Your task to perform on an android device: clear all cookies in the chrome app Image 0: 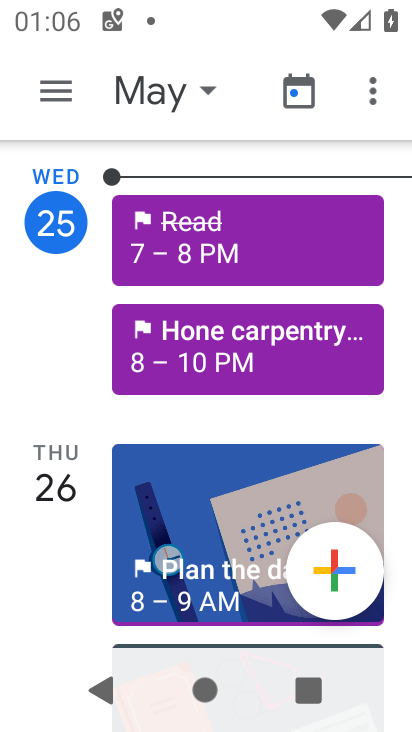
Step 0: press home button
Your task to perform on an android device: clear all cookies in the chrome app Image 1: 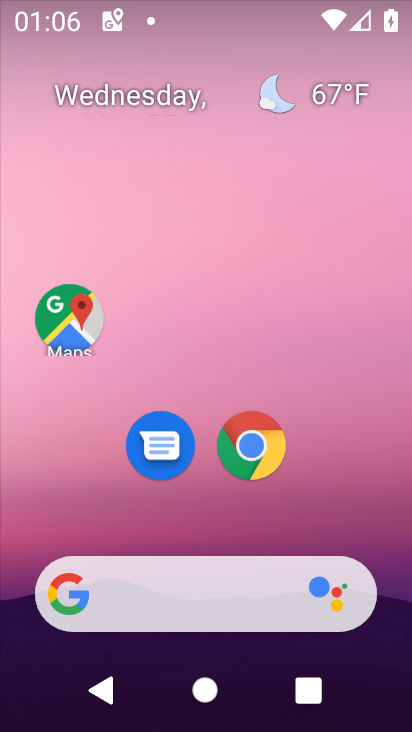
Step 1: click (271, 447)
Your task to perform on an android device: clear all cookies in the chrome app Image 2: 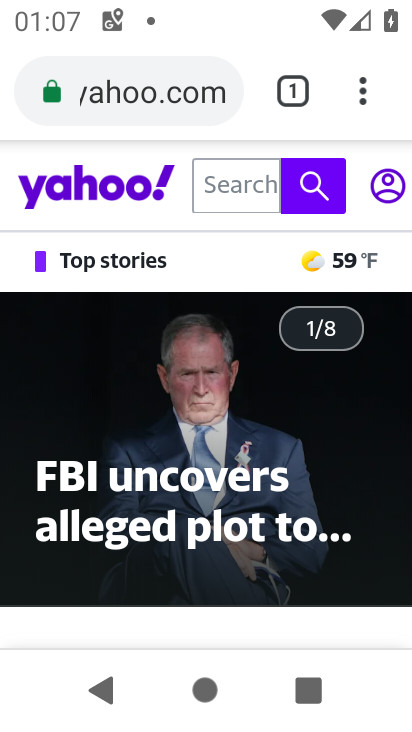
Step 2: click (364, 104)
Your task to perform on an android device: clear all cookies in the chrome app Image 3: 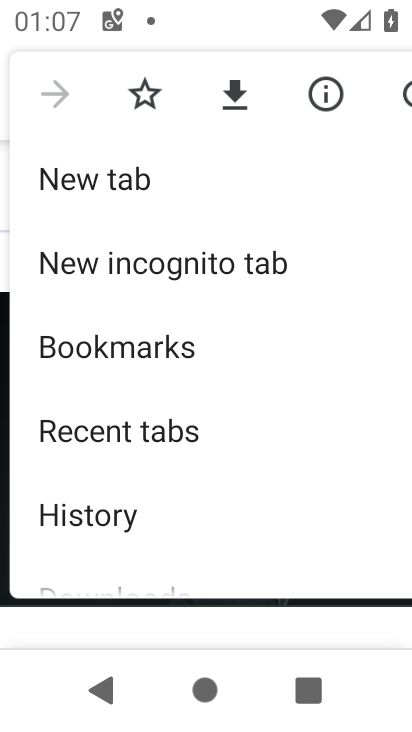
Step 3: click (131, 525)
Your task to perform on an android device: clear all cookies in the chrome app Image 4: 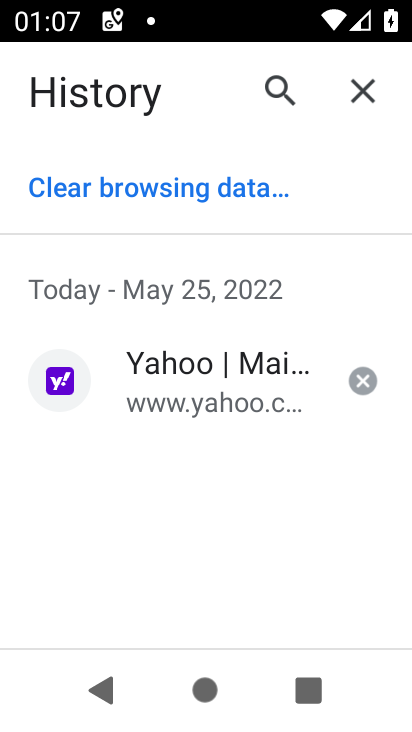
Step 4: click (173, 198)
Your task to perform on an android device: clear all cookies in the chrome app Image 5: 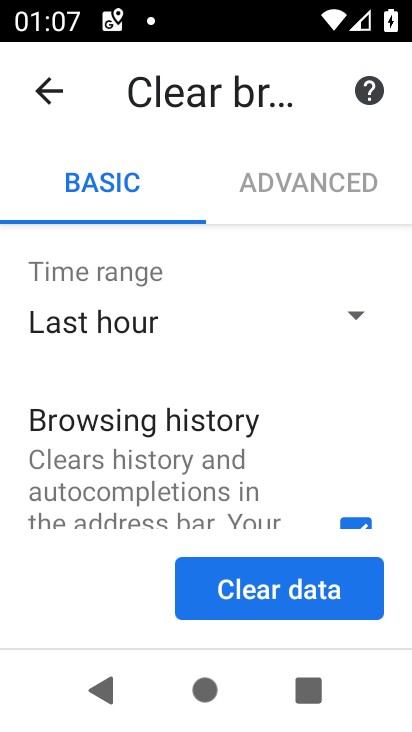
Step 5: drag from (258, 464) to (265, 252)
Your task to perform on an android device: clear all cookies in the chrome app Image 6: 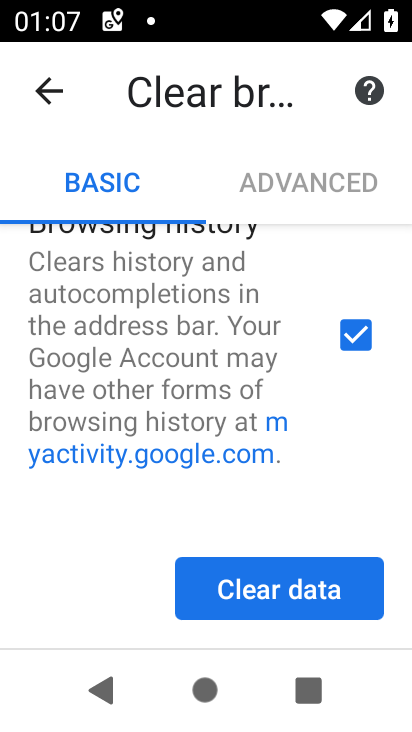
Step 6: click (346, 328)
Your task to perform on an android device: clear all cookies in the chrome app Image 7: 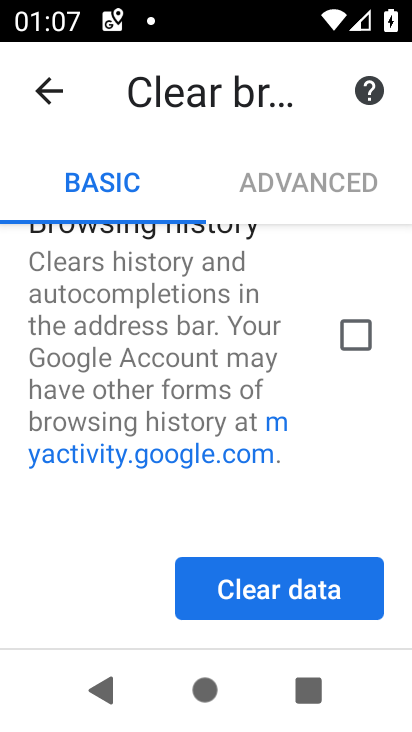
Step 7: drag from (302, 217) to (297, 159)
Your task to perform on an android device: clear all cookies in the chrome app Image 8: 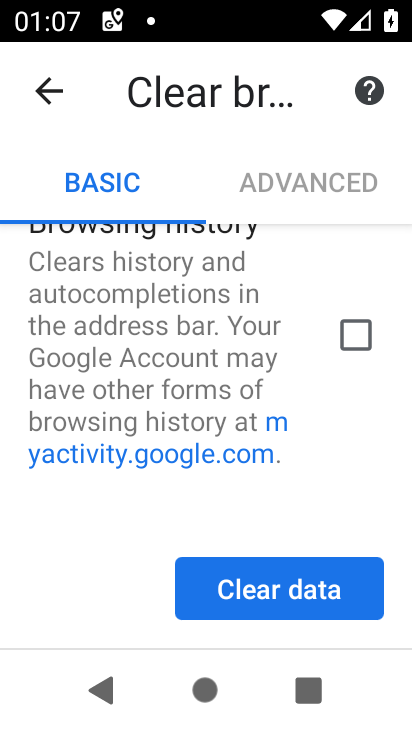
Step 8: drag from (236, 399) to (215, 115)
Your task to perform on an android device: clear all cookies in the chrome app Image 9: 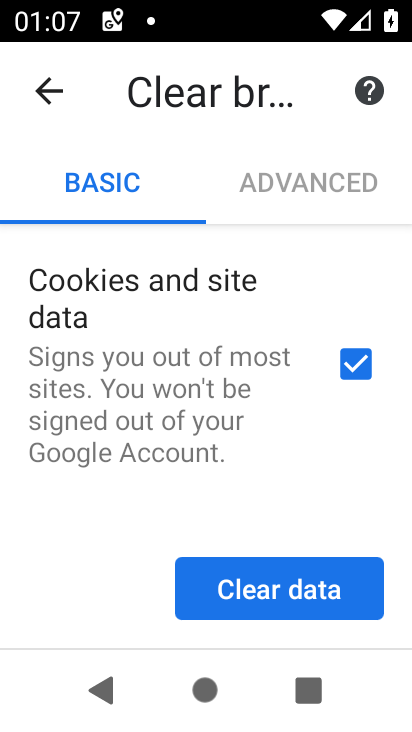
Step 9: click (295, 613)
Your task to perform on an android device: clear all cookies in the chrome app Image 10: 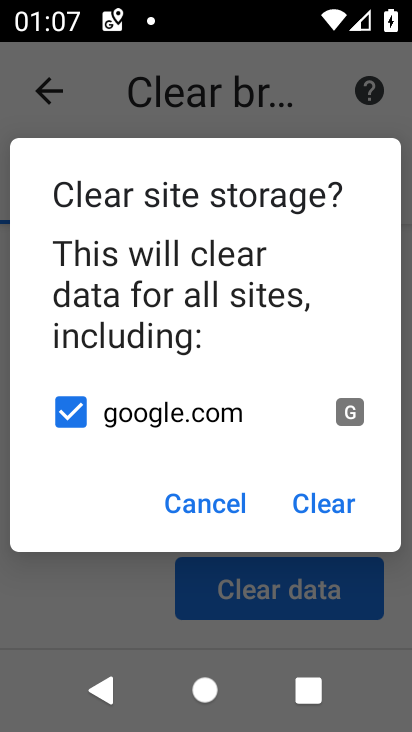
Step 10: click (300, 498)
Your task to perform on an android device: clear all cookies in the chrome app Image 11: 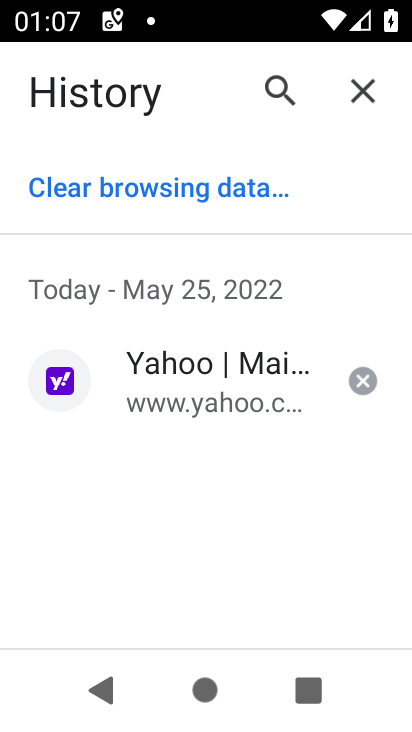
Step 11: task complete